Your task to perform on an android device: Go to notification settings Image 0: 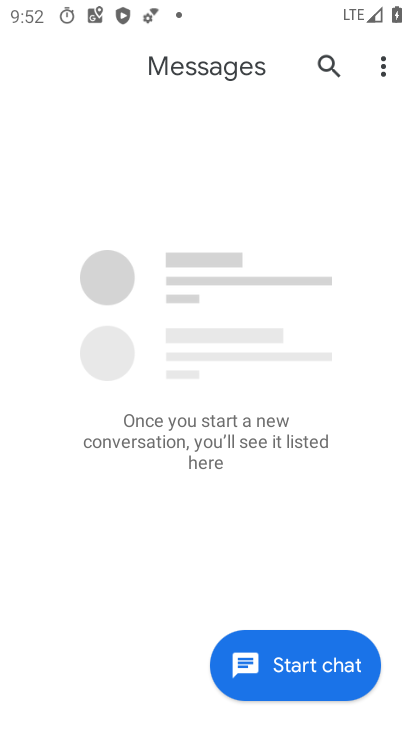
Step 0: press home button
Your task to perform on an android device: Go to notification settings Image 1: 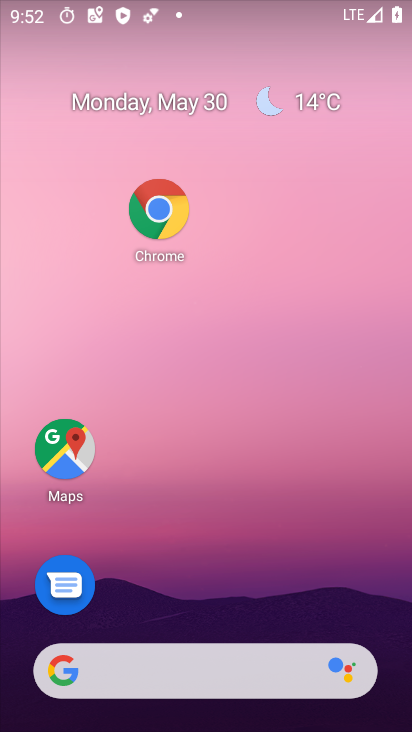
Step 1: drag from (220, 581) to (363, 110)
Your task to perform on an android device: Go to notification settings Image 2: 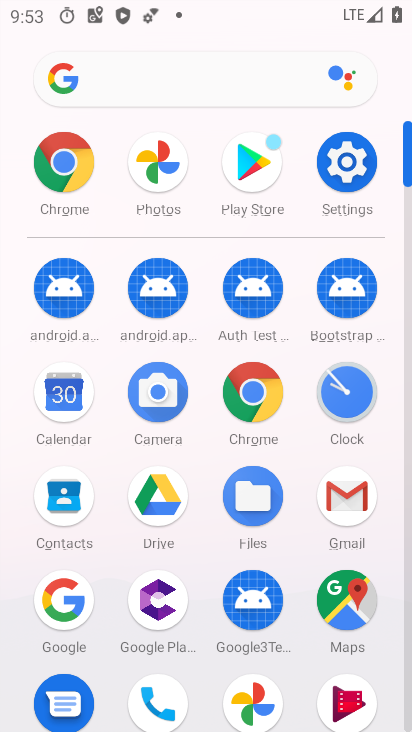
Step 2: click (361, 153)
Your task to perform on an android device: Go to notification settings Image 3: 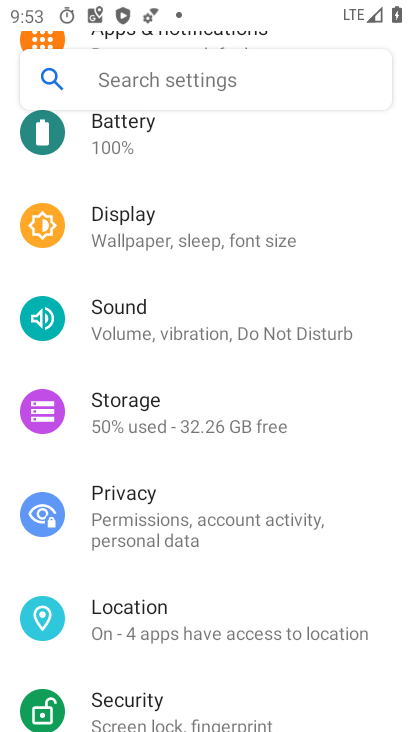
Step 3: drag from (246, 190) to (220, 712)
Your task to perform on an android device: Go to notification settings Image 4: 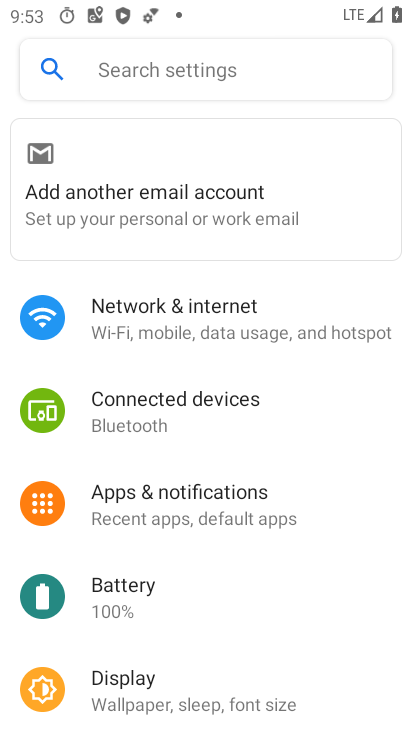
Step 4: click (173, 499)
Your task to perform on an android device: Go to notification settings Image 5: 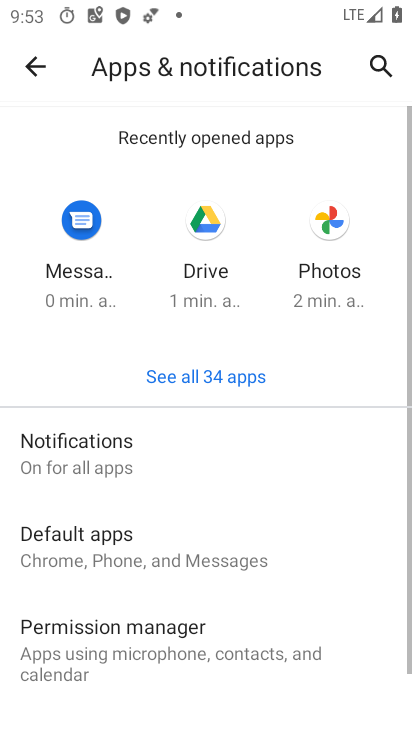
Step 5: click (174, 442)
Your task to perform on an android device: Go to notification settings Image 6: 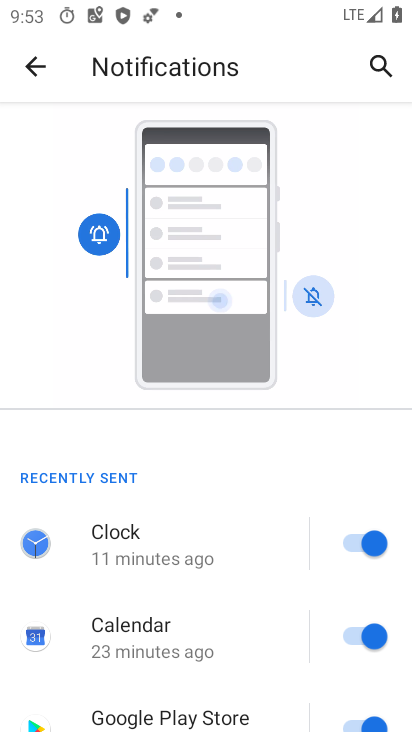
Step 6: drag from (231, 675) to (304, 1)
Your task to perform on an android device: Go to notification settings Image 7: 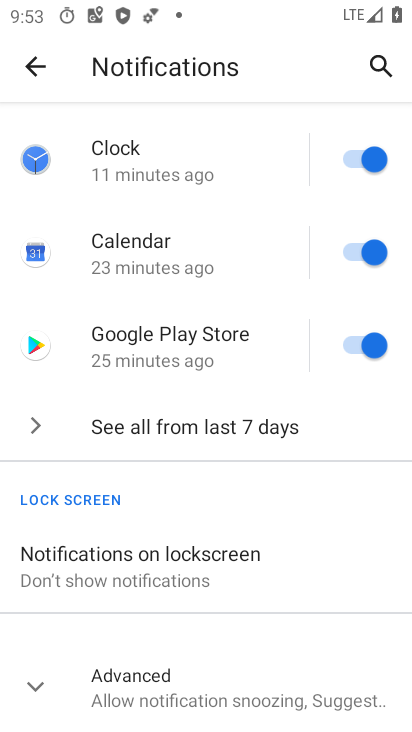
Step 7: click (181, 680)
Your task to perform on an android device: Go to notification settings Image 8: 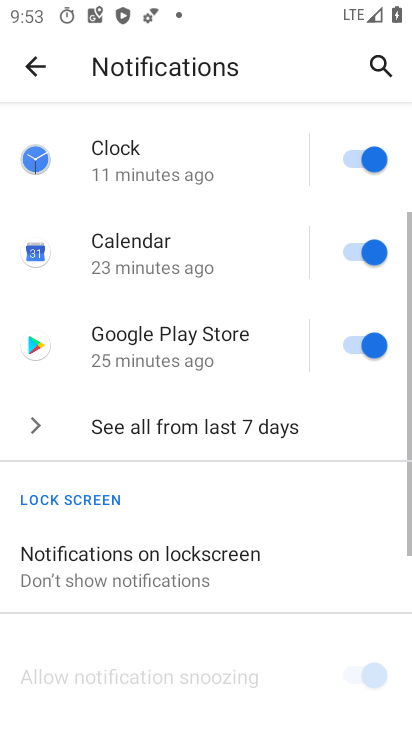
Step 8: task complete